Your task to perform on an android device: Open Youtube and go to the subscriptions tab Image 0: 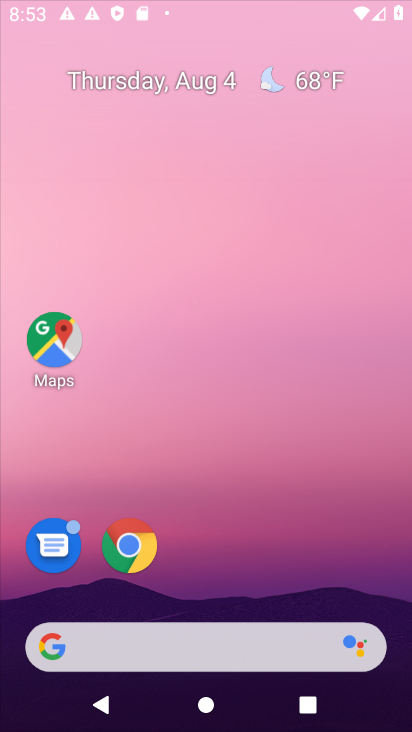
Step 0: press home button
Your task to perform on an android device: Open Youtube and go to the subscriptions tab Image 1: 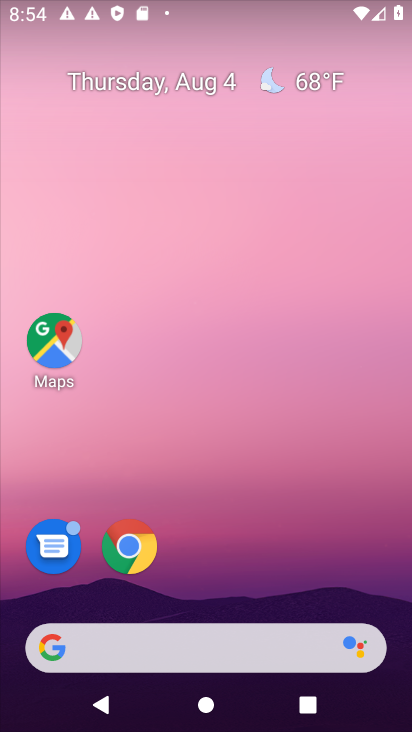
Step 1: drag from (246, 595) to (231, 94)
Your task to perform on an android device: Open Youtube and go to the subscriptions tab Image 2: 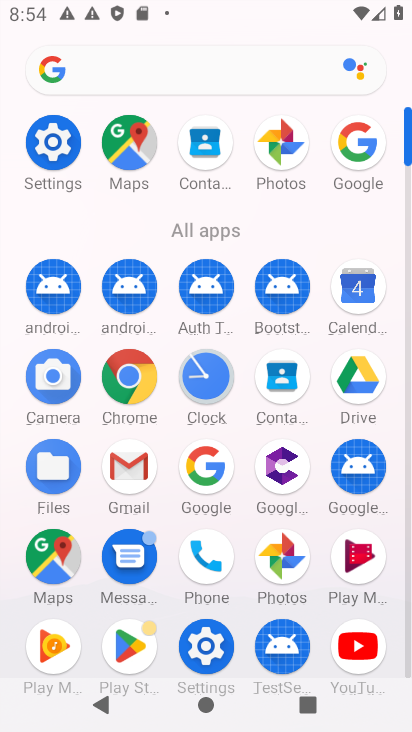
Step 2: click (353, 662)
Your task to perform on an android device: Open Youtube and go to the subscriptions tab Image 3: 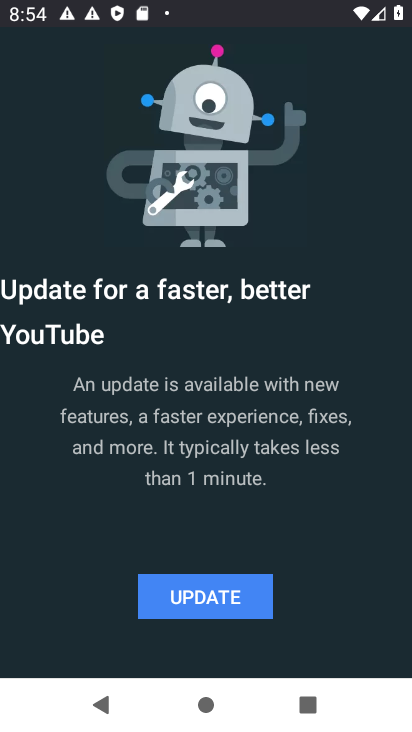
Step 3: click (220, 600)
Your task to perform on an android device: Open Youtube and go to the subscriptions tab Image 4: 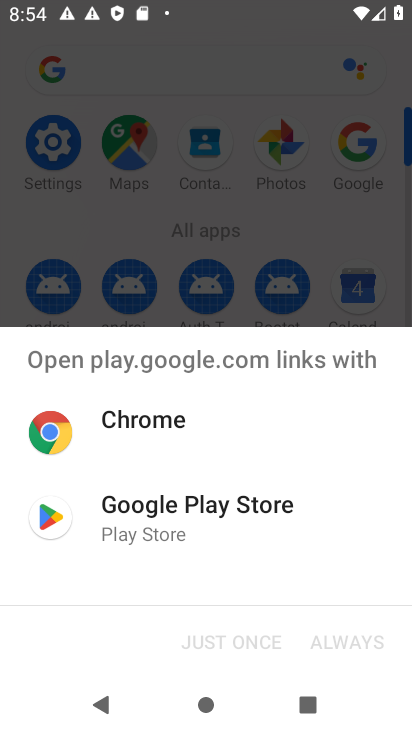
Step 4: click (127, 525)
Your task to perform on an android device: Open Youtube and go to the subscriptions tab Image 5: 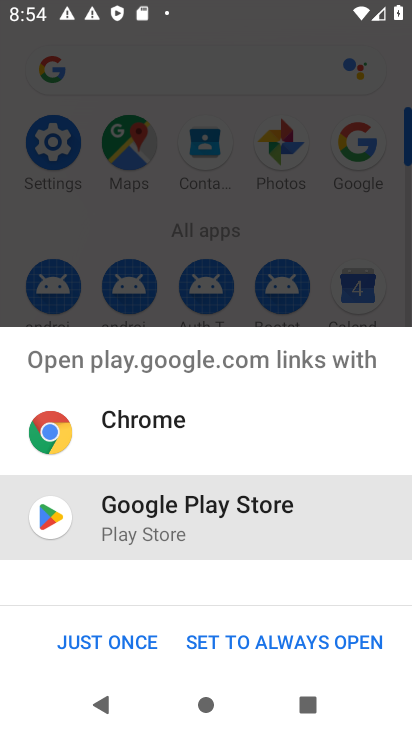
Step 5: click (119, 642)
Your task to perform on an android device: Open Youtube and go to the subscriptions tab Image 6: 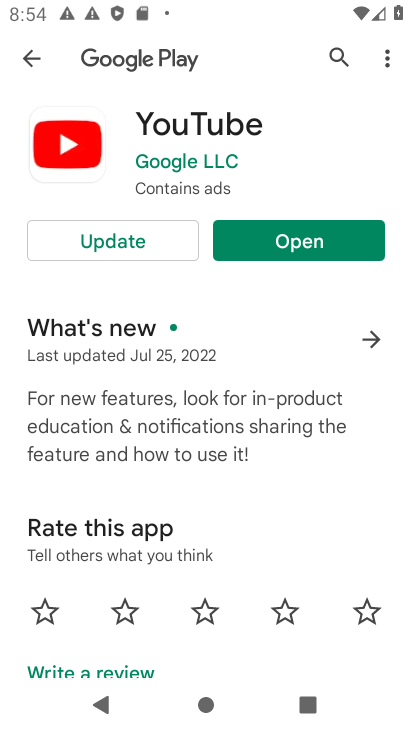
Step 6: click (145, 245)
Your task to perform on an android device: Open Youtube and go to the subscriptions tab Image 7: 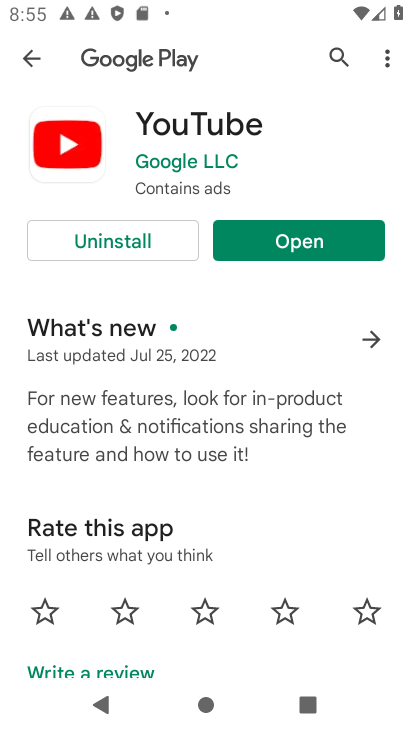
Step 7: click (238, 239)
Your task to perform on an android device: Open Youtube and go to the subscriptions tab Image 8: 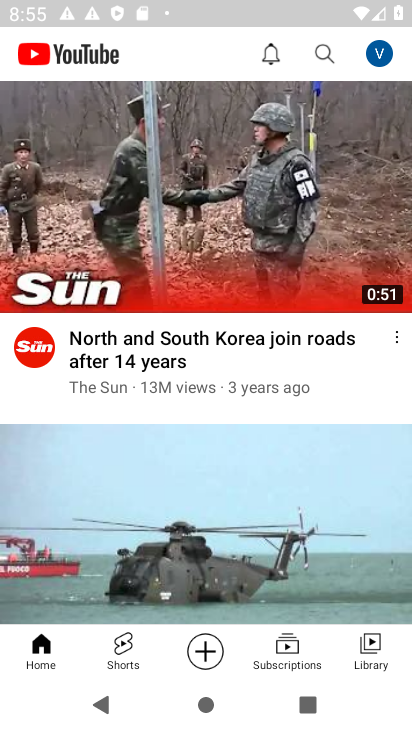
Step 8: click (285, 647)
Your task to perform on an android device: Open Youtube and go to the subscriptions tab Image 9: 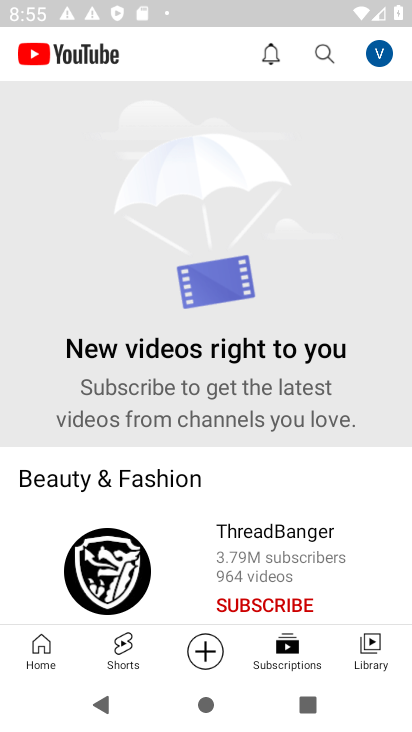
Step 9: task complete